Your task to perform on an android device: Go to settings Image 0: 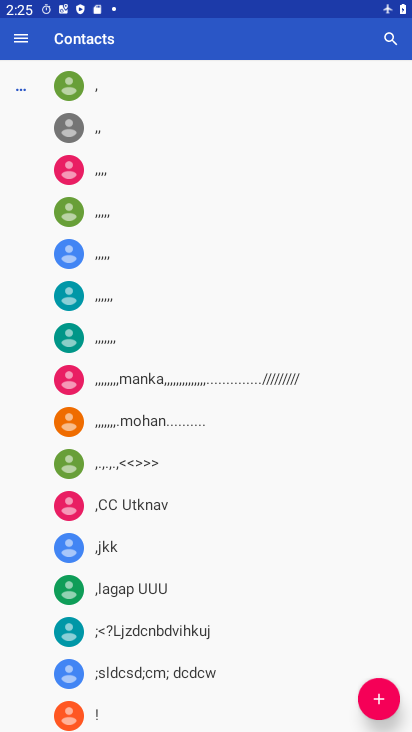
Step 0: press home button
Your task to perform on an android device: Go to settings Image 1: 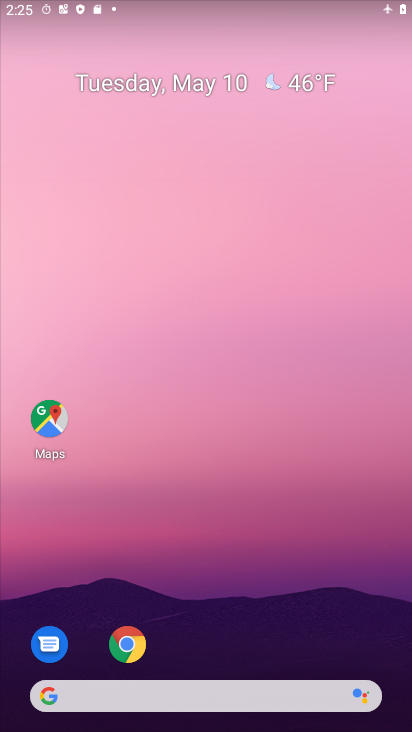
Step 1: drag from (205, 677) to (227, 341)
Your task to perform on an android device: Go to settings Image 2: 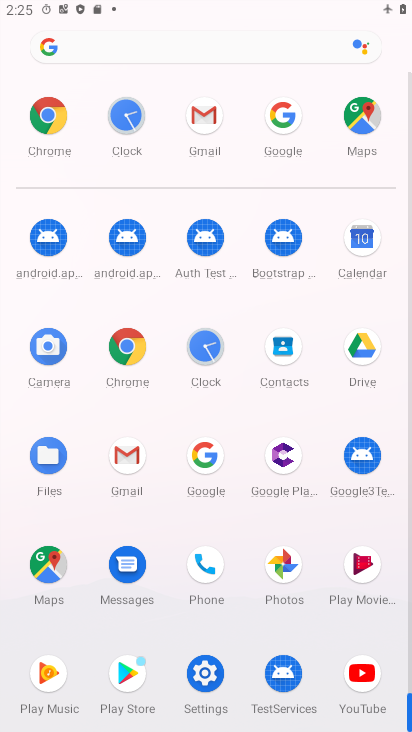
Step 2: click (200, 691)
Your task to perform on an android device: Go to settings Image 3: 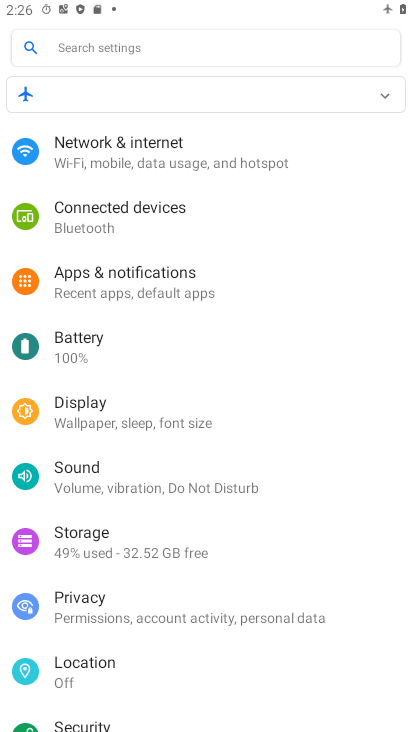
Step 3: task complete